Your task to perform on an android device: see tabs open on other devices in the chrome app Image 0: 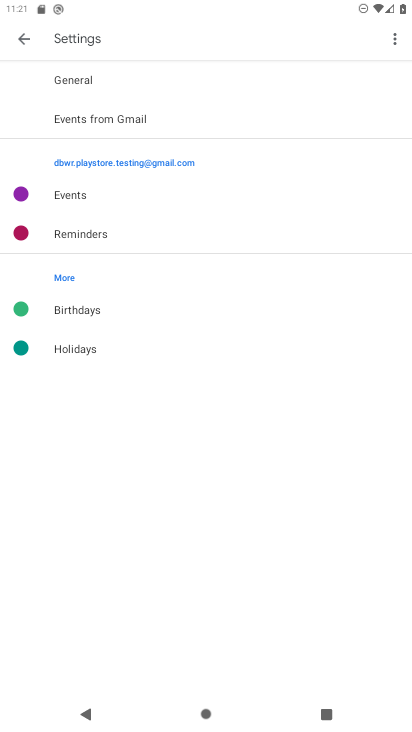
Step 0: press back button
Your task to perform on an android device: see tabs open on other devices in the chrome app Image 1: 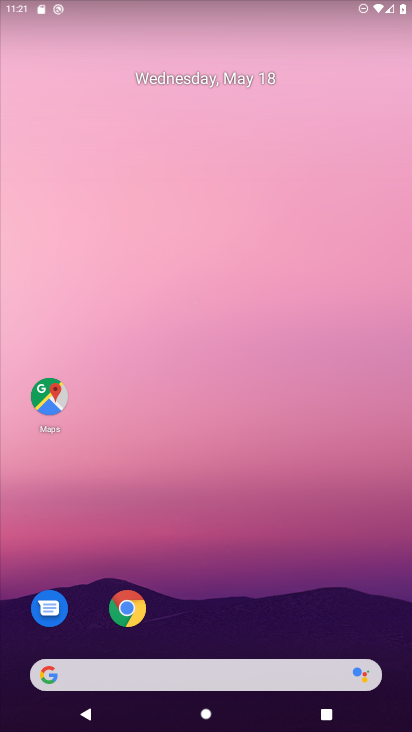
Step 1: click (126, 609)
Your task to perform on an android device: see tabs open on other devices in the chrome app Image 2: 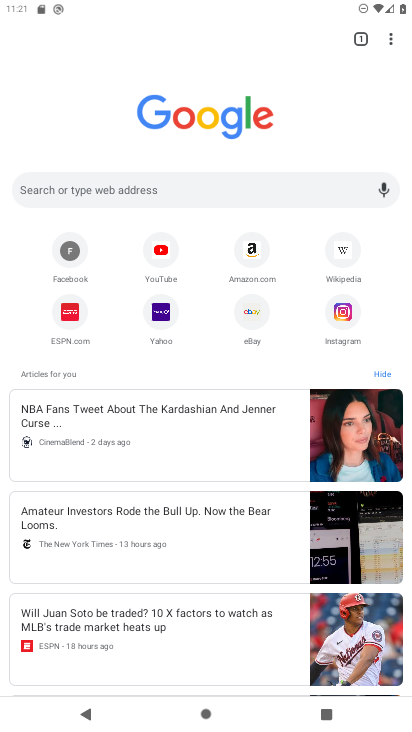
Step 2: click (390, 38)
Your task to perform on an android device: see tabs open on other devices in the chrome app Image 3: 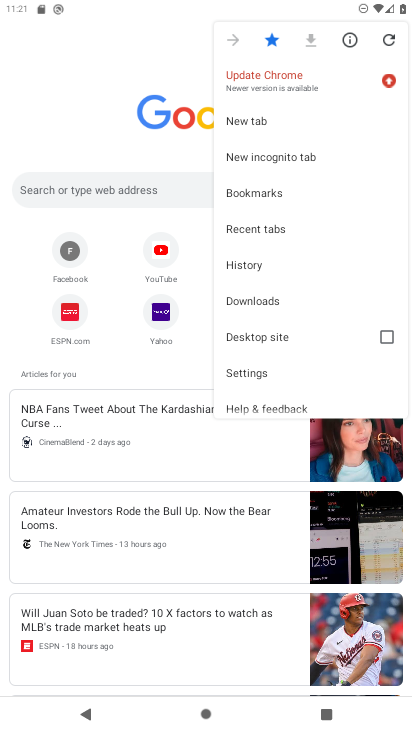
Step 3: click (275, 227)
Your task to perform on an android device: see tabs open on other devices in the chrome app Image 4: 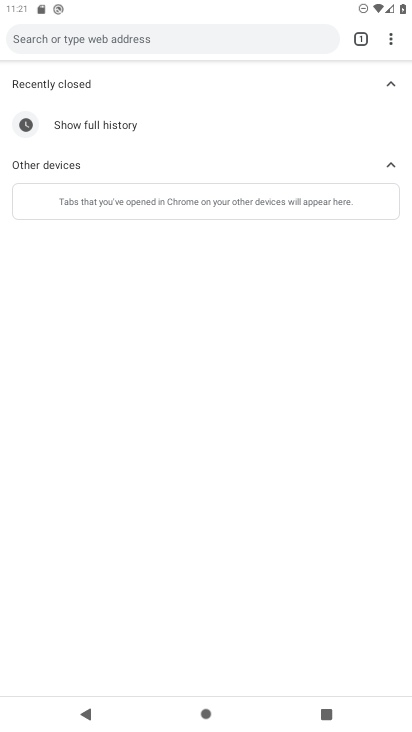
Step 4: task complete